Your task to perform on an android device: change your default location settings in chrome Image 0: 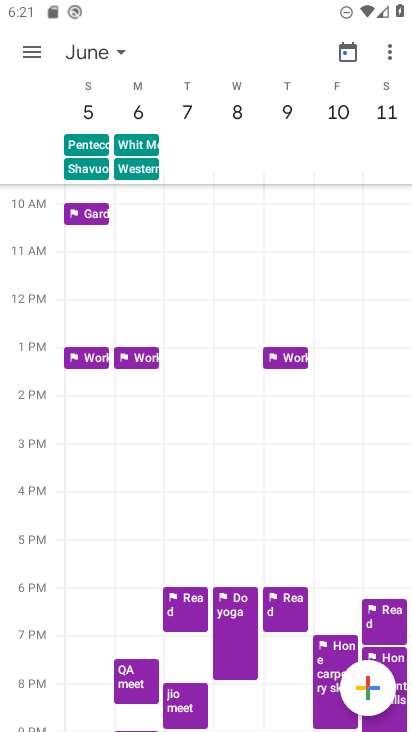
Step 0: press home button
Your task to perform on an android device: change your default location settings in chrome Image 1: 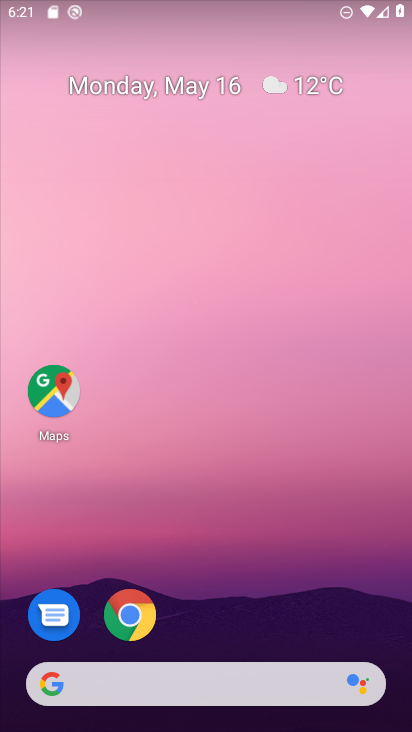
Step 1: drag from (213, 614) to (252, 145)
Your task to perform on an android device: change your default location settings in chrome Image 2: 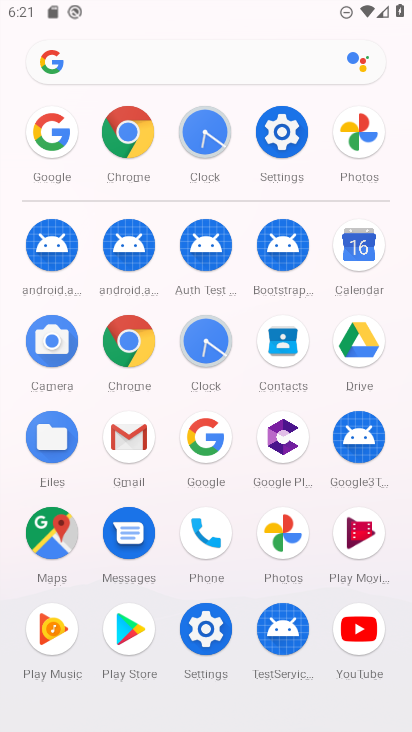
Step 2: press home button
Your task to perform on an android device: change your default location settings in chrome Image 3: 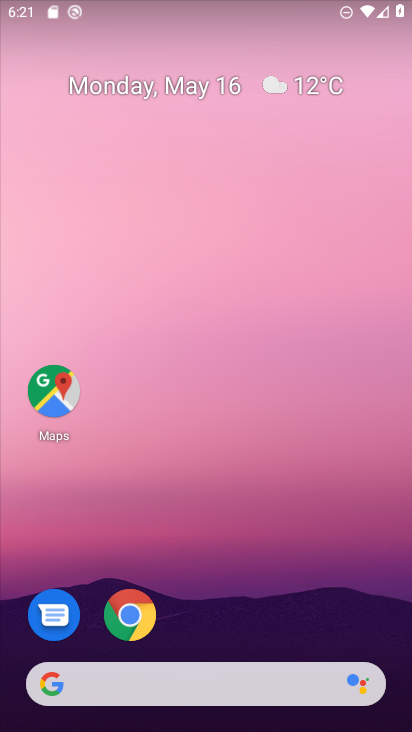
Step 3: drag from (234, 614) to (308, 90)
Your task to perform on an android device: change your default location settings in chrome Image 4: 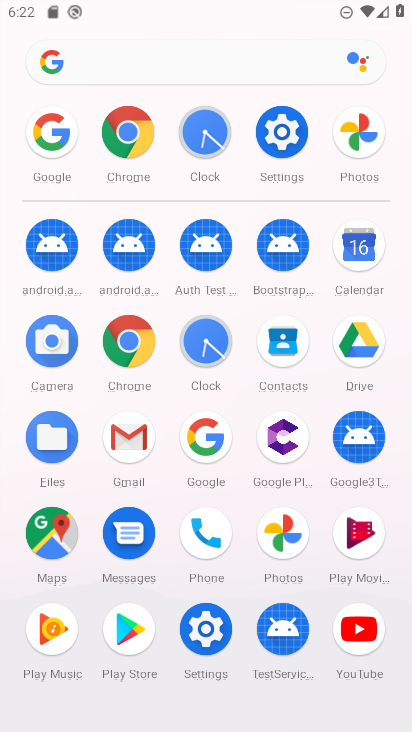
Step 4: click (211, 635)
Your task to perform on an android device: change your default location settings in chrome Image 5: 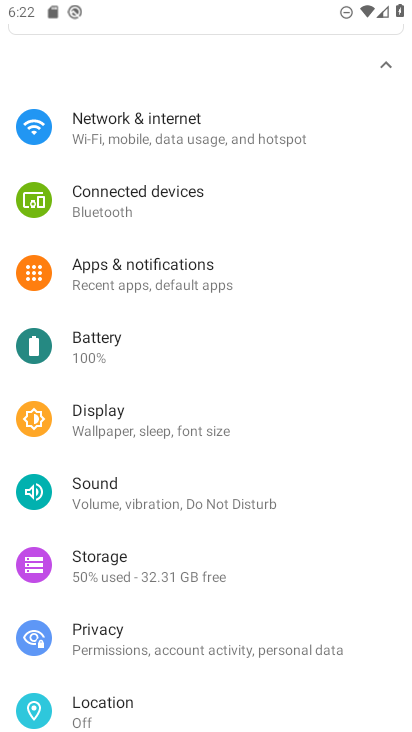
Step 5: press back button
Your task to perform on an android device: change your default location settings in chrome Image 6: 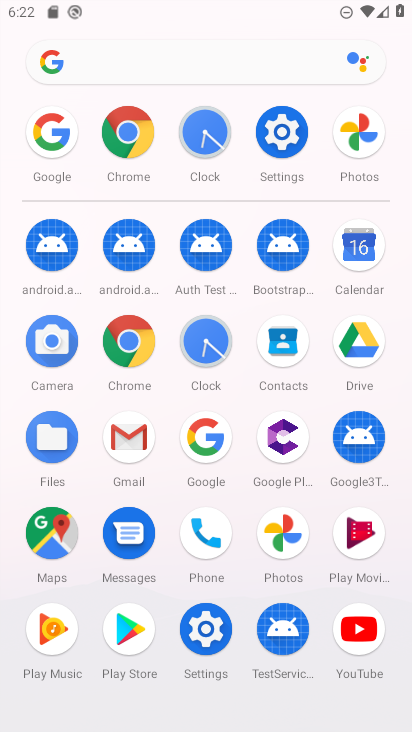
Step 6: click (133, 357)
Your task to perform on an android device: change your default location settings in chrome Image 7: 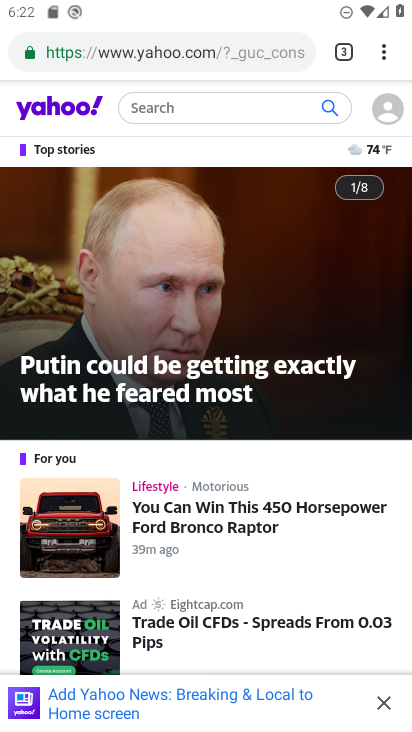
Step 7: click (386, 54)
Your task to perform on an android device: change your default location settings in chrome Image 8: 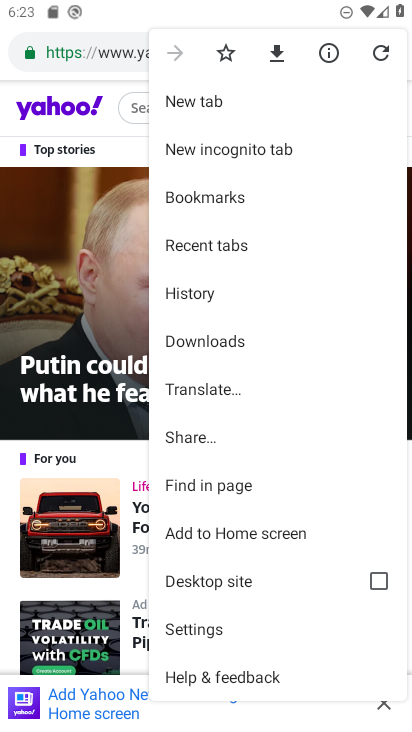
Step 8: click (203, 640)
Your task to perform on an android device: change your default location settings in chrome Image 9: 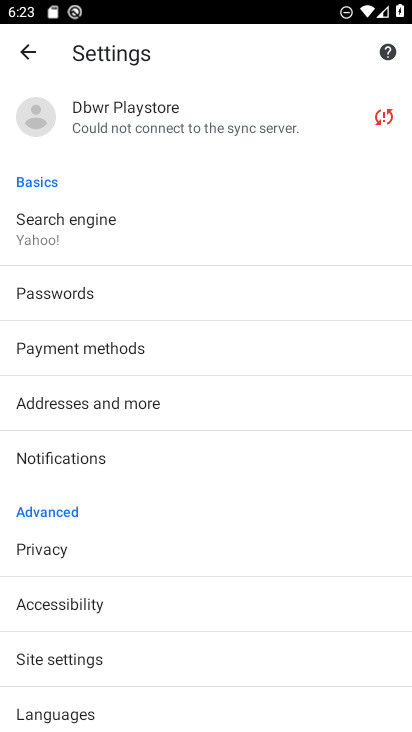
Step 9: click (72, 658)
Your task to perform on an android device: change your default location settings in chrome Image 10: 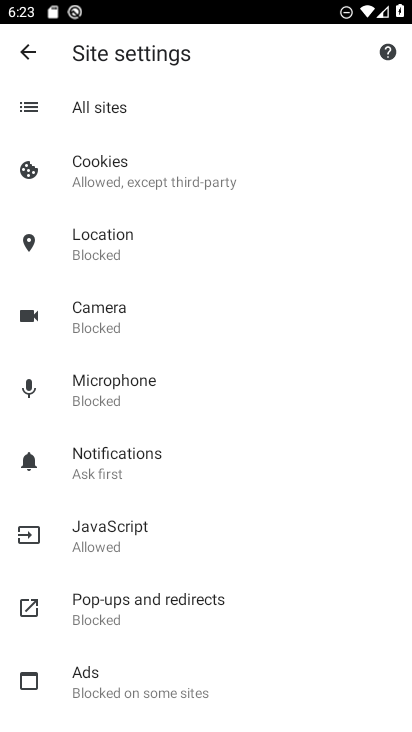
Step 10: click (101, 255)
Your task to perform on an android device: change your default location settings in chrome Image 11: 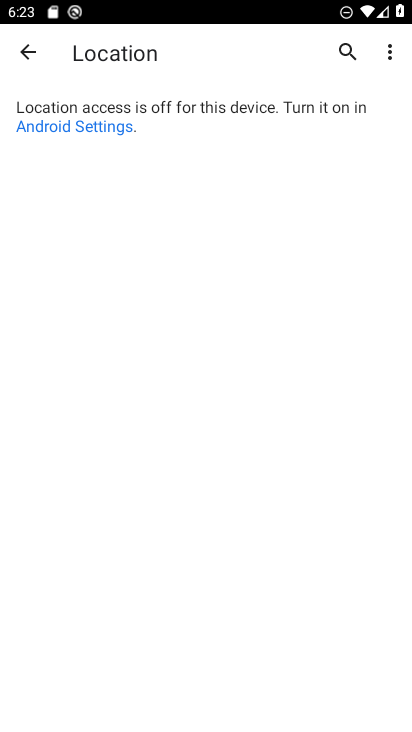
Step 11: click (25, 57)
Your task to perform on an android device: change your default location settings in chrome Image 12: 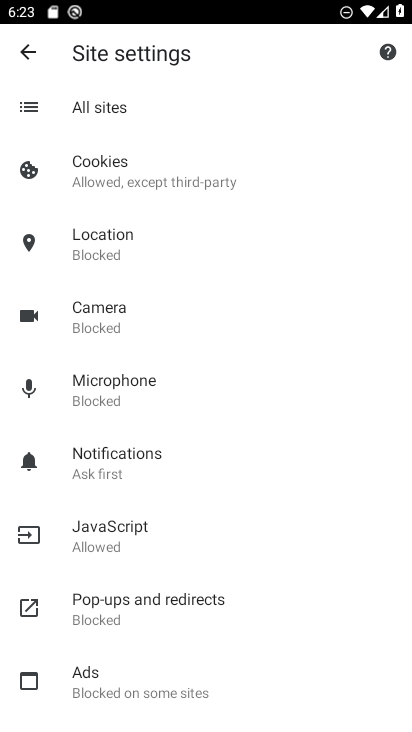
Step 12: click (101, 244)
Your task to perform on an android device: change your default location settings in chrome Image 13: 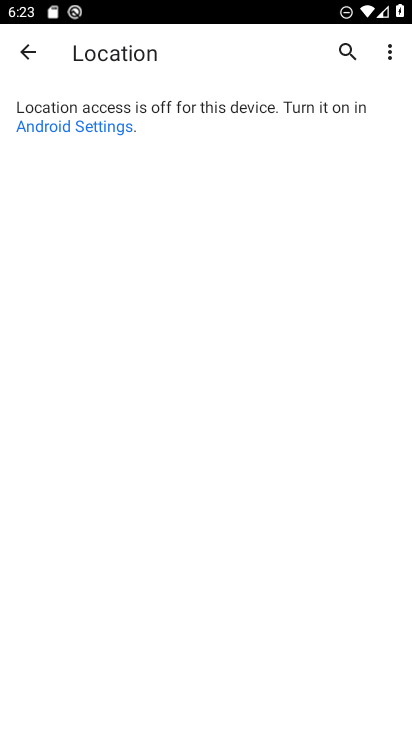
Step 13: click (93, 124)
Your task to perform on an android device: change your default location settings in chrome Image 14: 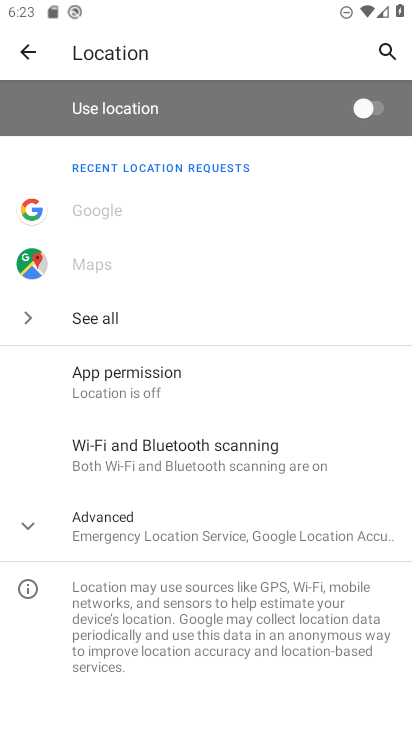
Step 14: click (385, 115)
Your task to perform on an android device: change your default location settings in chrome Image 15: 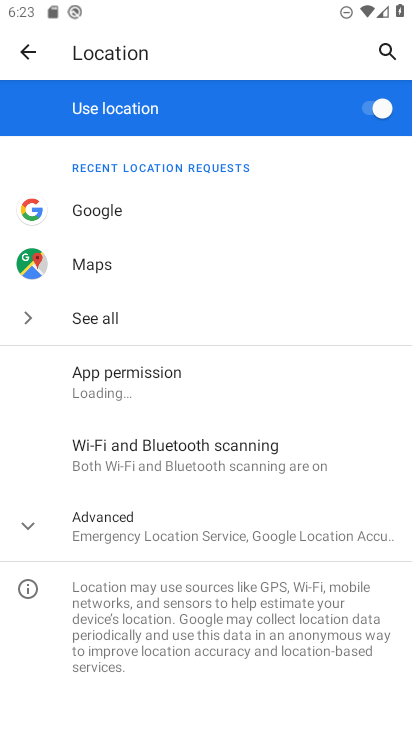
Step 15: task complete